Your task to perform on an android device: turn off wifi Image 0: 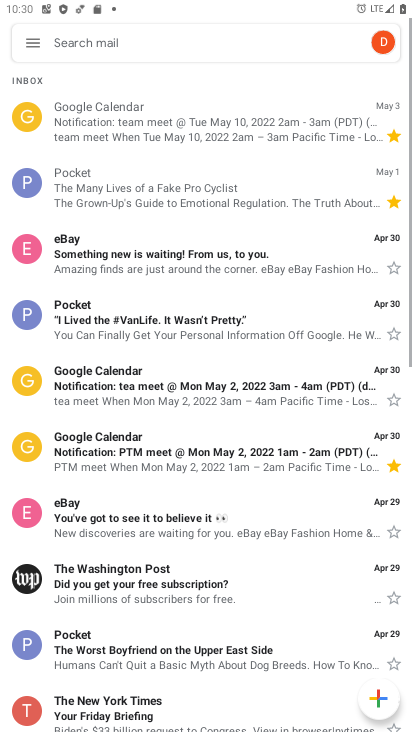
Step 0: press home button
Your task to perform on an android device: turn off wifi Image 1: 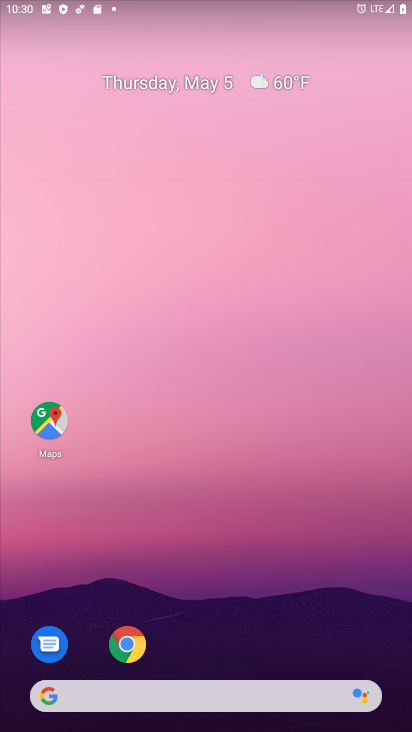
Step 1: drag from (234, 626) to (239, 88)
Your task to perform on an android device: turn off wifi Image 2: 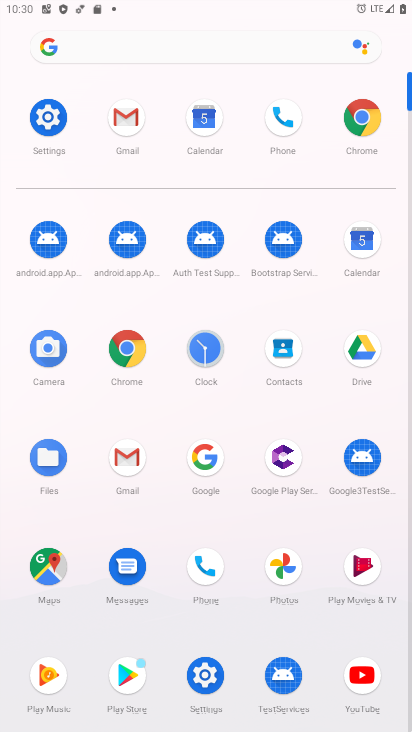
Step 2: click (54, 116)
Your task to perform on an android device: turn off wifi Image 3: 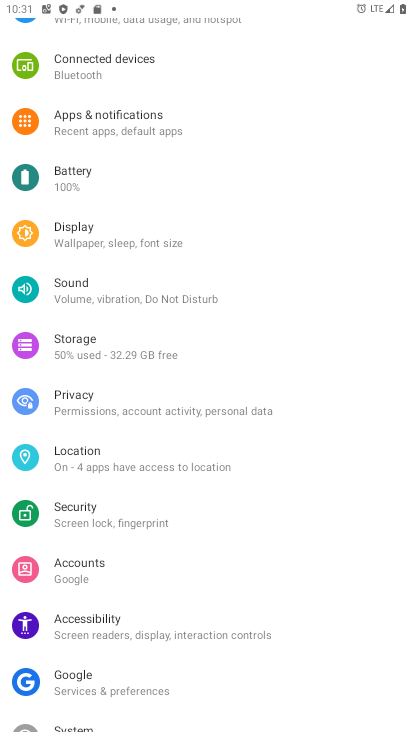
Step 3: drag from (179, 90) to (192, 452)
Your task to perform on an android device: turn off wifi Image 4: 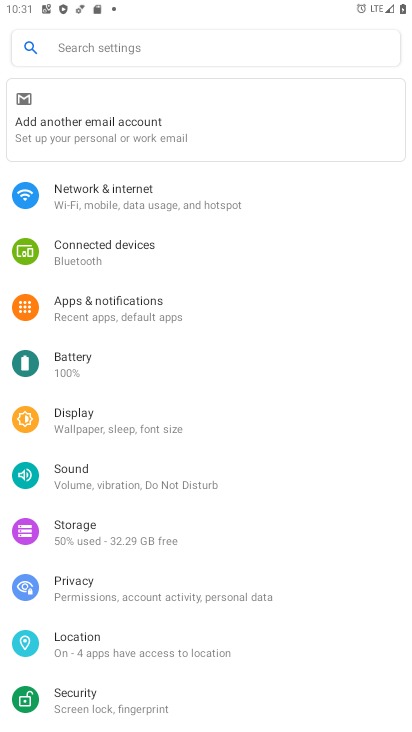
Step 4: click (149, 202)
Your task to perform on an android device: turn off wifi Image 5: 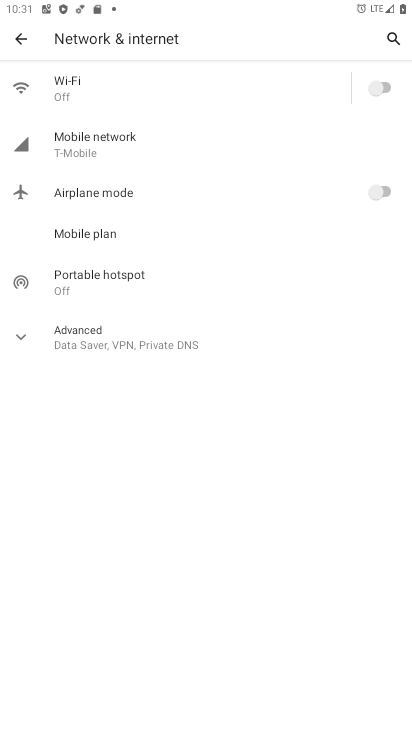
Step 5: task complete